Your task to perform on an android device: Open settings on Google Maps Image 0: 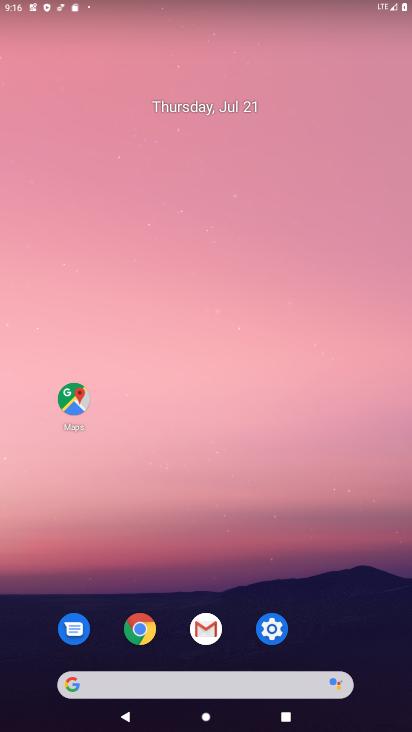
Step 0: click (81, 403)
Your task to perform on an android device: Open settings on Google Maps Image 1: 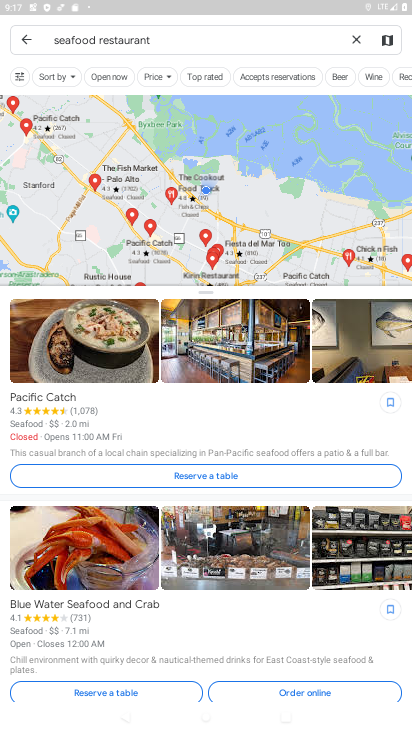
Step 1: click (23, 39)
Your task to perform on an android device: Open settings on Google Maps Image 2: 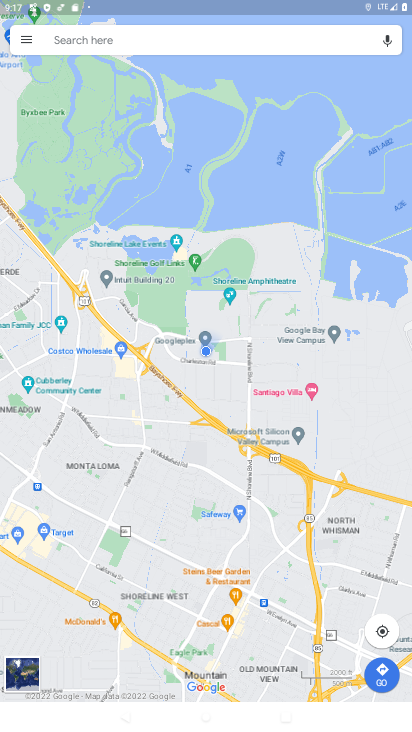
Step 2: click (23, 39)
Your task to perform on an android device: Open settings on Google Maps Image 3: 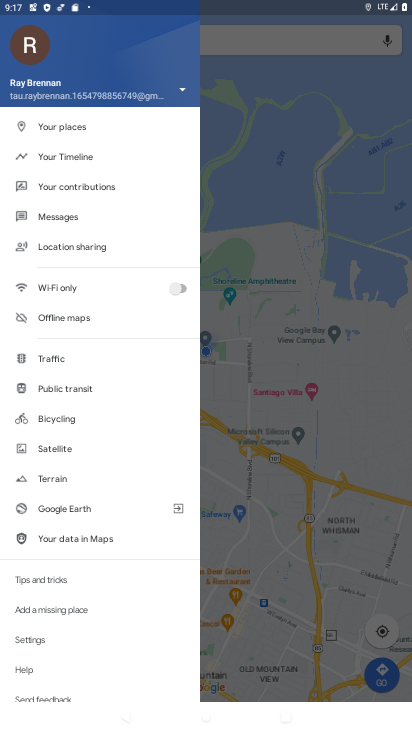
Step 3: click (30, 642)
Your task to perform on an android device: Open settings on Google Maps Image 4: 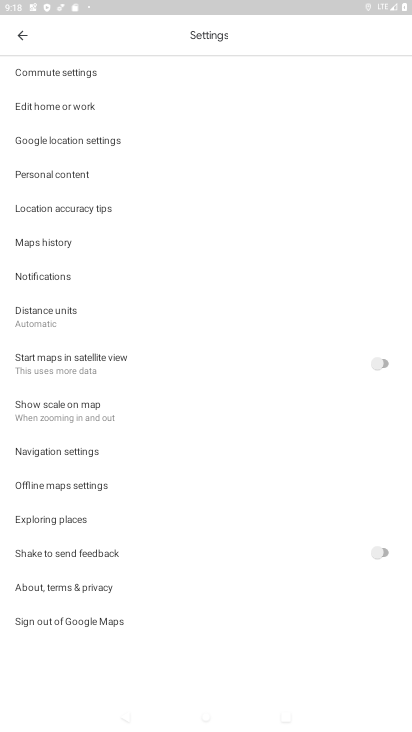
Step 4: task complete